Your task to perform on an android device: refresh tabs in the chrome app Image 0: 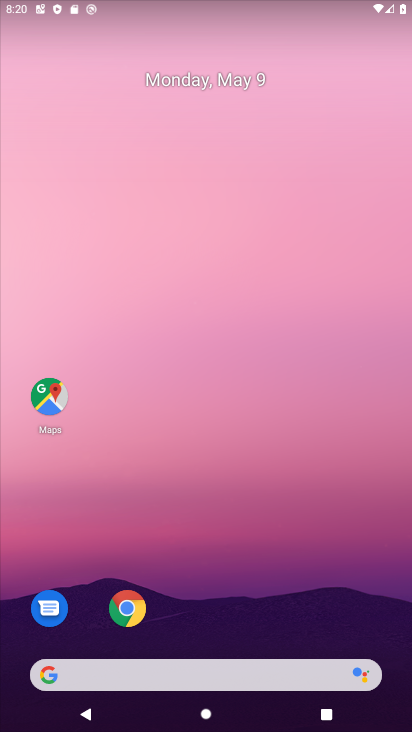
Step 0: click (132, 609)
Your task to perform on an android device: refresh tabs in the chrome app Image 1: 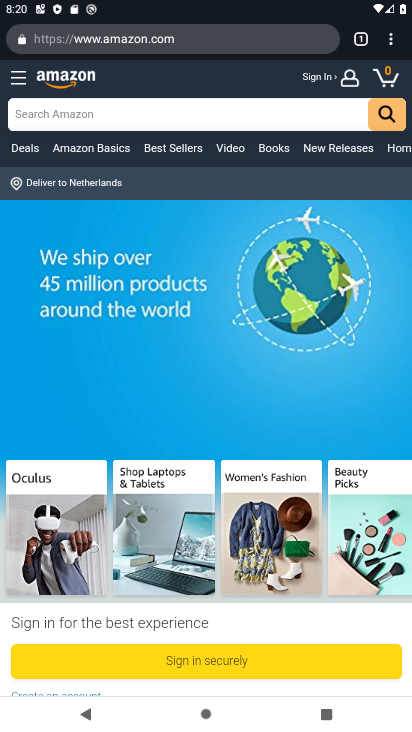
Step 1: click (398, 36)
Your task to perform on an android device: refresh tabs in the chrome app Image 2: 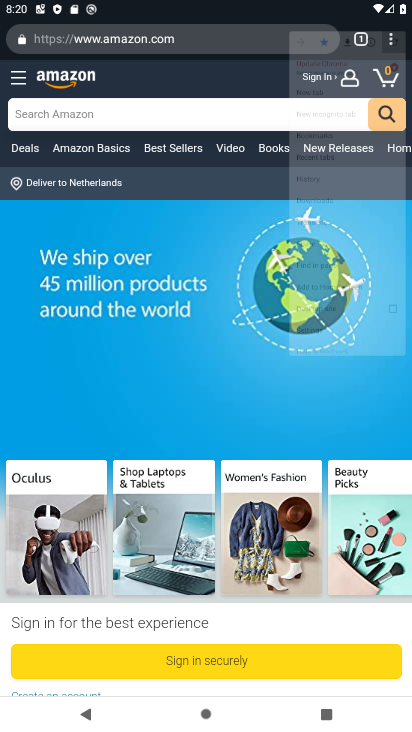
Step 2: click (398, 34)
Your task to perform on an android device: refresh tabs in the chrome app Image 3: 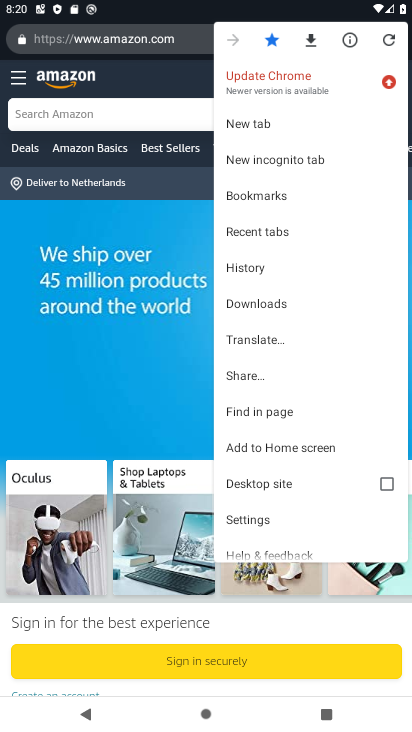
Step 3: task complete